Your task to perform on an android device: Show me productivity apps on the Play Store Image 0: 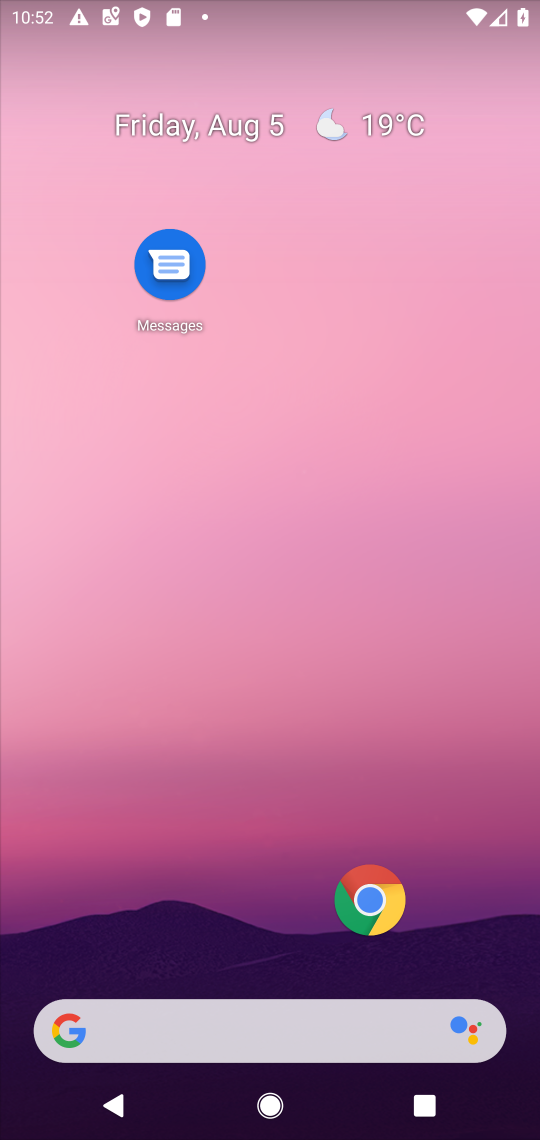
Step 0: press home button
Your task to perform on an android device: Show me productivity apps on the Play Store Image 1: 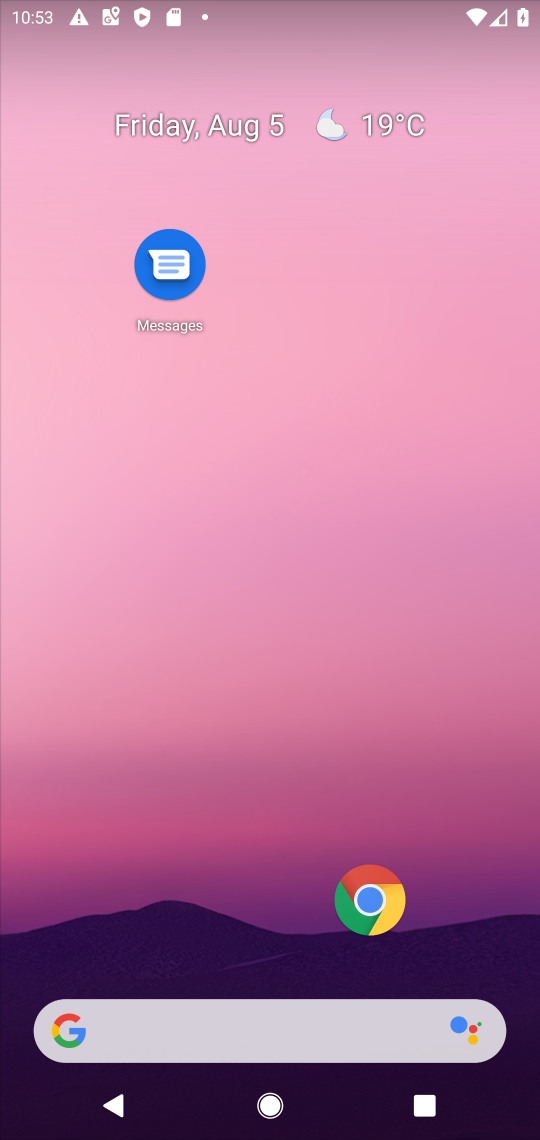
Step 1: drag from (166, 981) to (181, 107)
Your task to perform on an android device: Show me productivity apps on the Play Store Image 2: 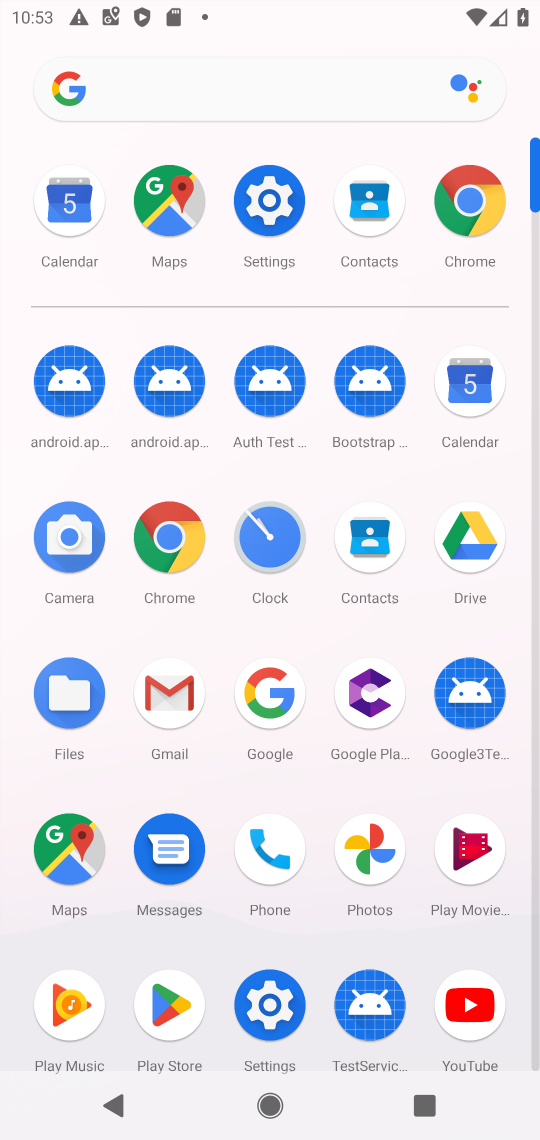
Step 2: click (197, 1021)
Your task to perform on an android device: Show me productivity apps on the Play Store Image 3: 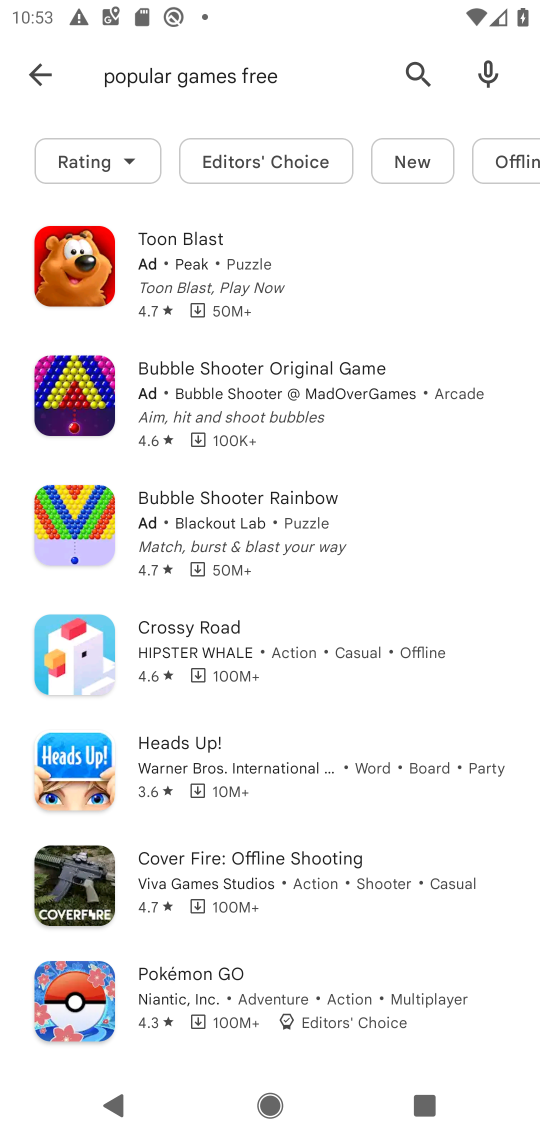
Step 3: click (411, 73)
Your task to perform on an android device: Show me productivity apps on the Play Store Image 4: 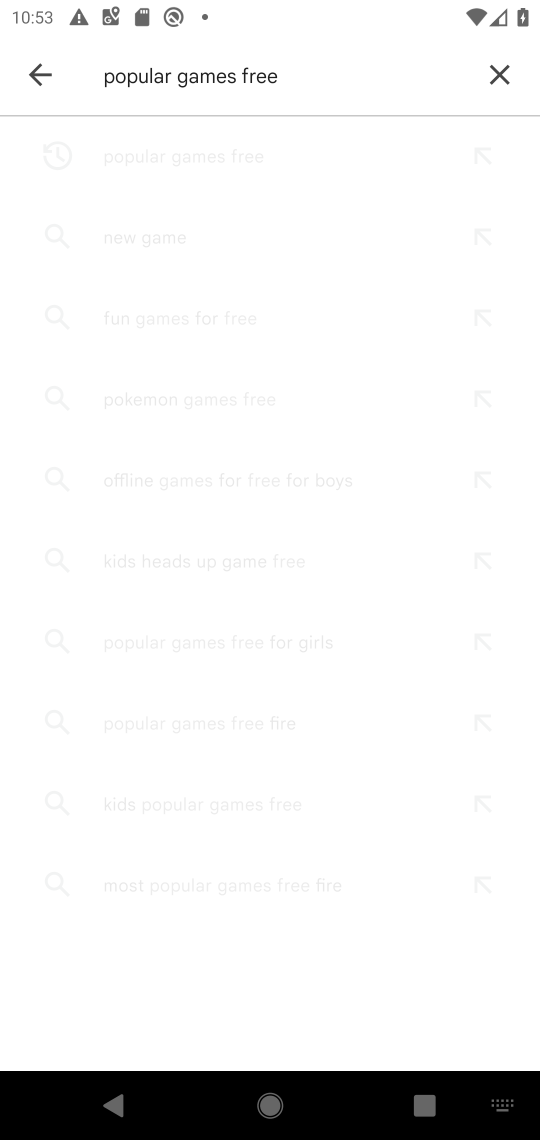
Step 4: click (481, 62)
Your task to perform on an android device: Show me productivity apps on the Play Store Image 5: 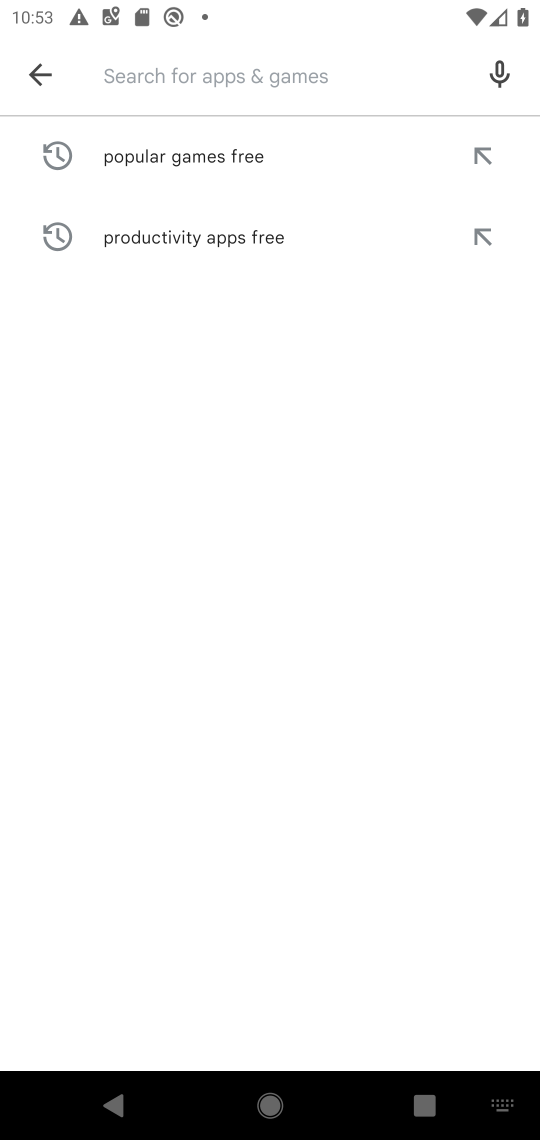
Step 5: type "productivity apps"
Your task to perform on an android device: Show me productivity apps on the Play Store Image 6: 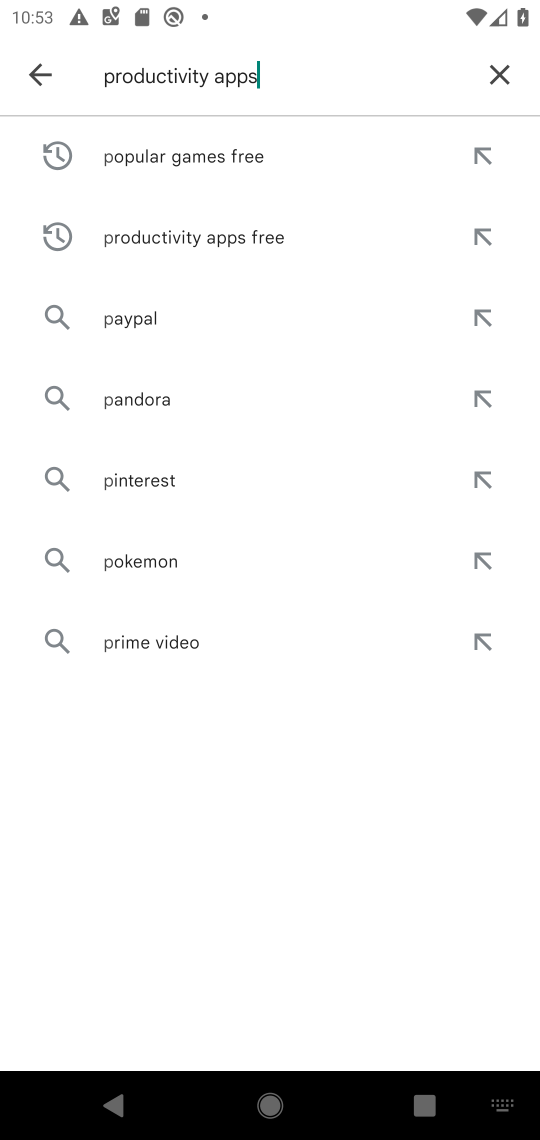
Step 6: type ""
Your task to perform on an android device: Show me productivity apps on the Play Store Image 7: 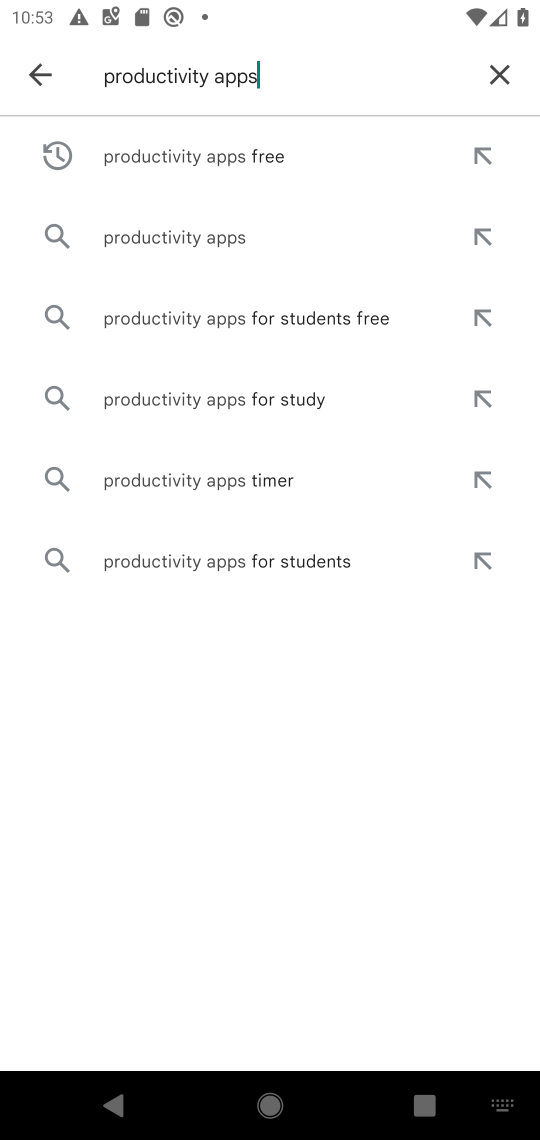
Step 7: click (145, 168)
Your task to perform on an android device: Show me productivity apps on the Play Store Image 8: 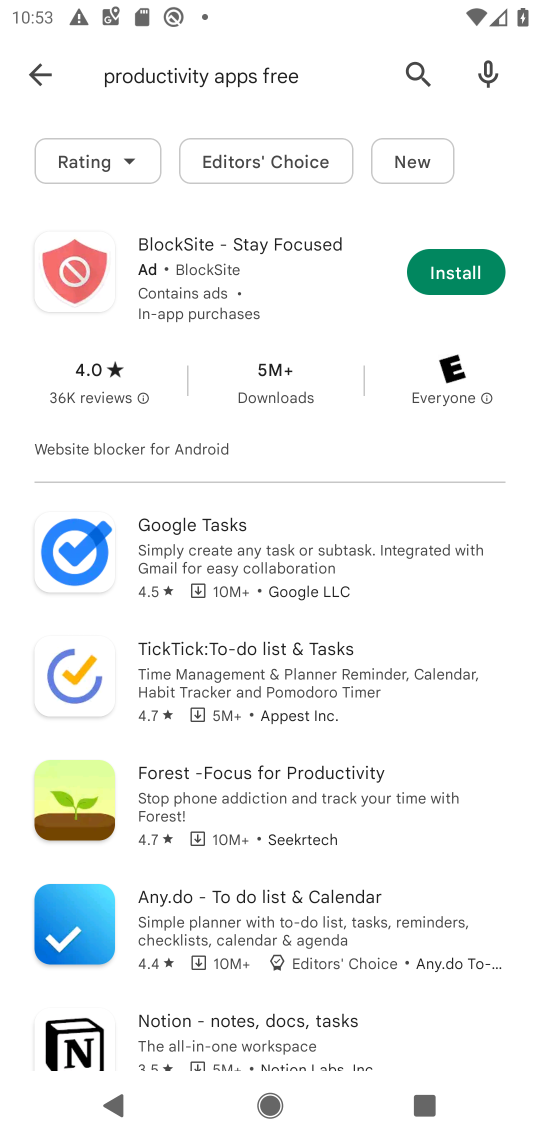
Step 8: task complete